Your task to perform on an android device: Open Youtube and go to the subscriptions tab Image 0: 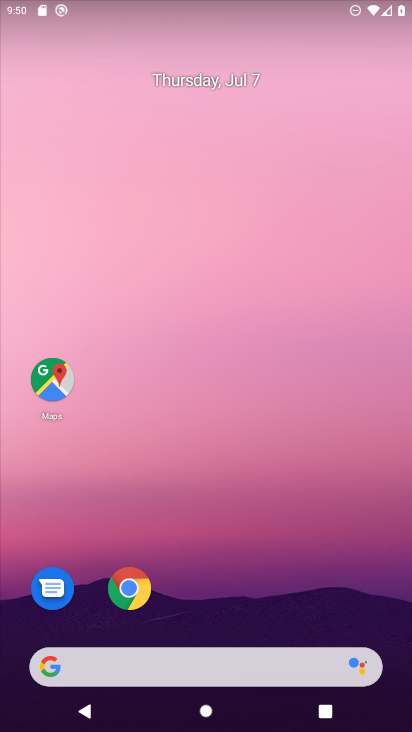
Step 0: drag from (226, 625) to (165, 7)
Your task to perform on an android device: Open Youtube and go to the subscriptions tab Image 1: 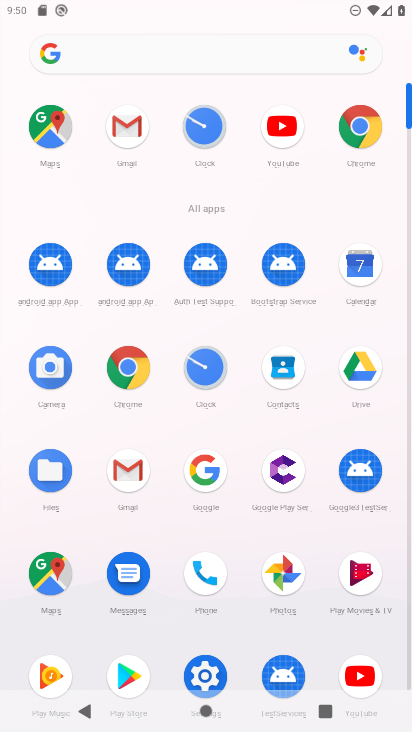
Step 1: click (360, 680)
Your task to perform on an android device: Open Youtube and go to the subscriptions tab Image 2: 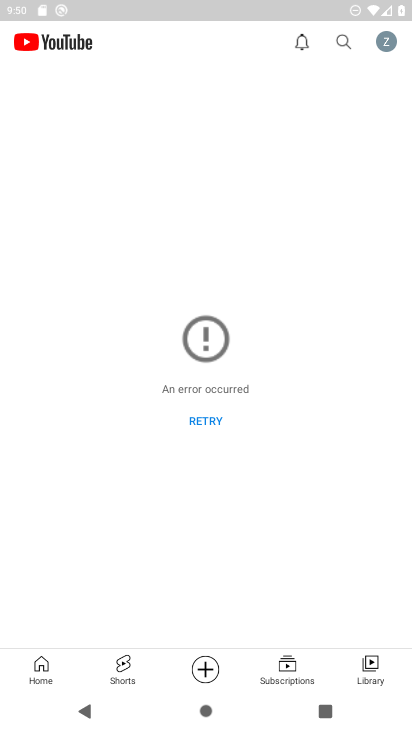
Step 2: click (290, 680)
Your task to perform on an android device: Open Youtube and go to the subscriptions tab Image 3: 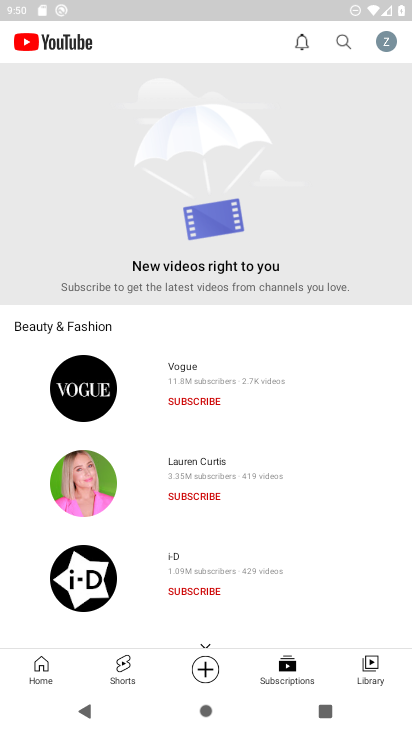
Step 3: task complete